Your task to perform on an android device: Go to CNN.com Image 0: 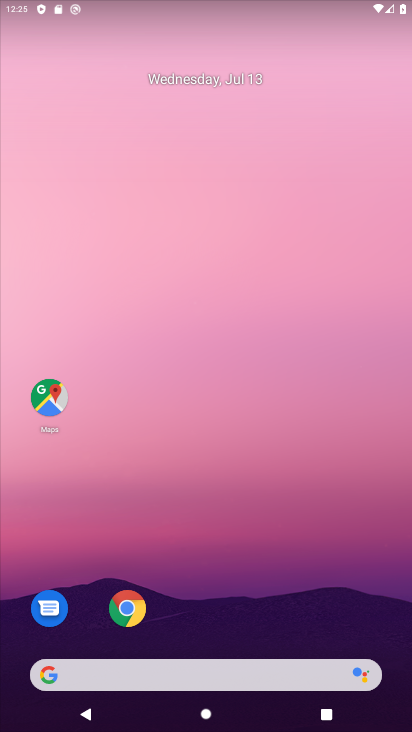
Step 0: drag from (365, 572) to (362, 81)
Your task to perform on an android device: Go to CNN.com Image 1: 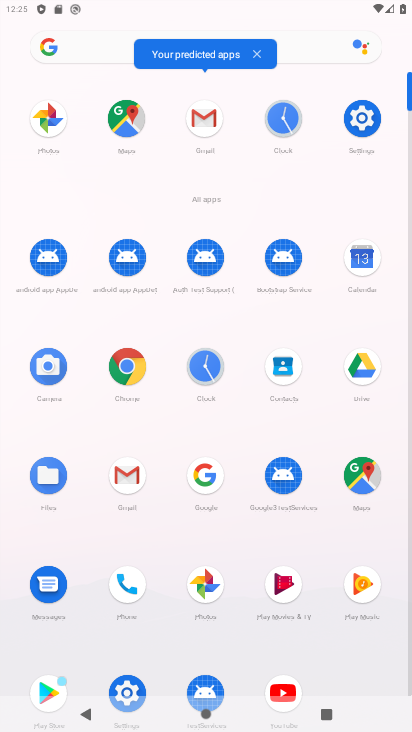
Step 1: click (125, 367)
Your task to perform on an android device: Go to CNN.com Image 2: 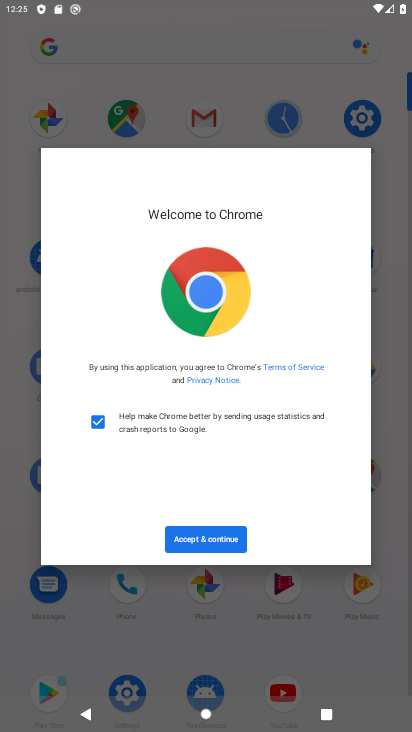
Step 2: click (219, 534)
Your task to perform on an android device: Go to CNN.com Image 3: 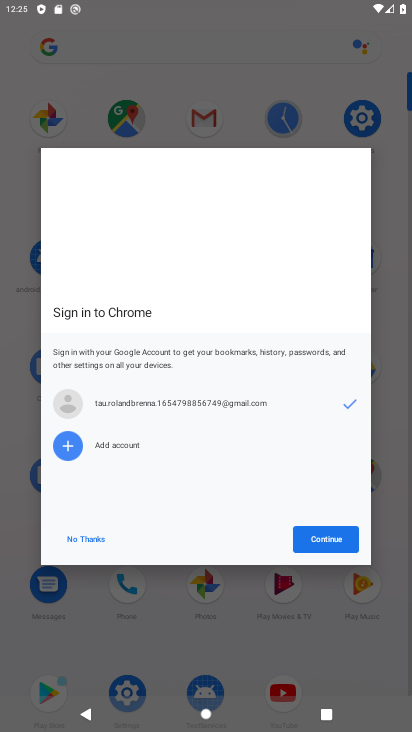
Step 3: click (311, 542)
Your task to perform on an android device: Go to CNN.com Image 4: 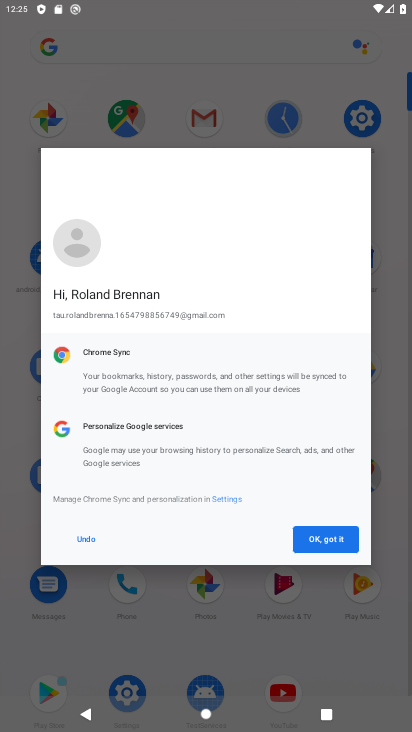
Step 4: click (326, 541)
Your task to perform on an android device: Go to CNN.com Image 5: 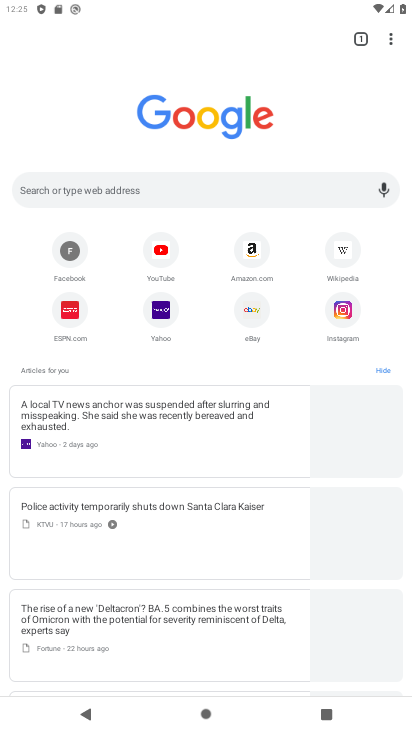
Step 5: click (197, 188)
Your task to perform on an android device: Go to CNN.com Image 6: 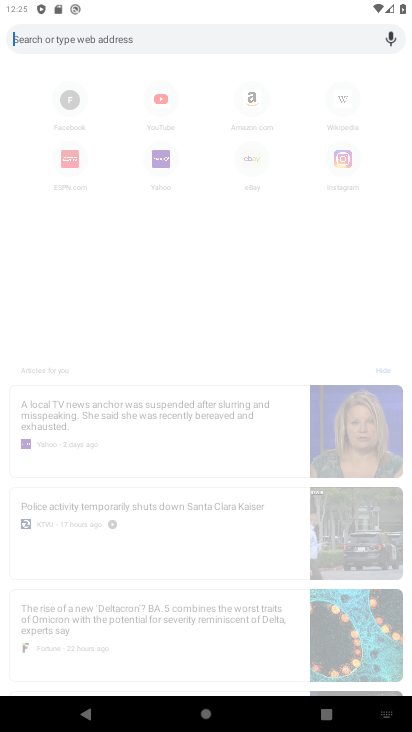
Step 6: type "cnn.com"
Your task to perform on an android device: Go to CNN.com Image 7: 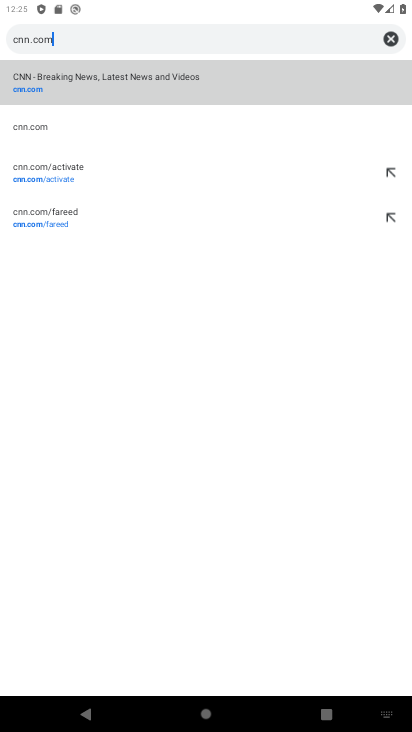
Step 7: click (221, 78)
Your task to perform on an android device: Go to CNN.com Image 8: 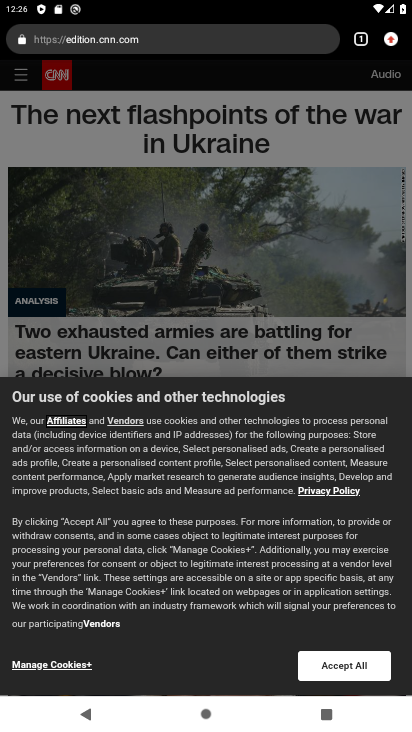
Step 8: task complete